Your task to perform on an android device: delete a single message in the gmail app Image 0: 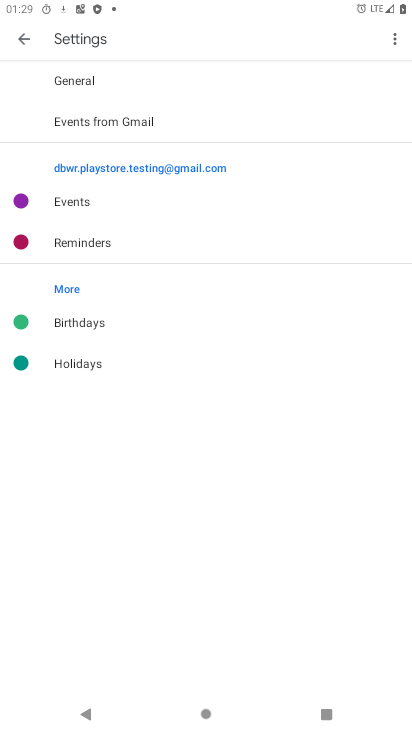
Step 0: press home button
Your task to perform on an android device: delete a single message in the gmail app Image 1: 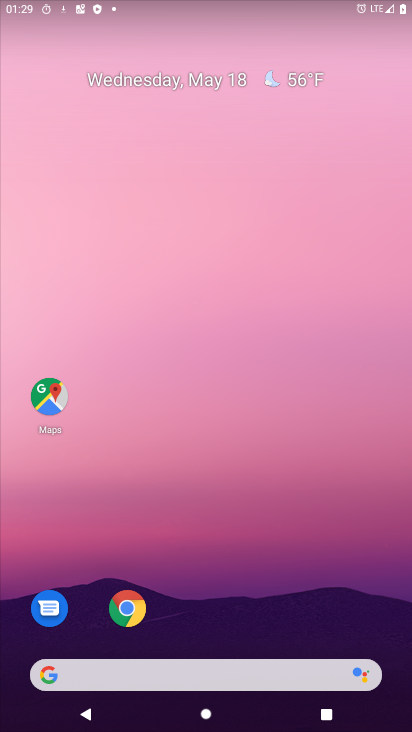
Step 1: drag from (232, 673) to (257, 304)
Your task to perform on an android device: delete a single message in the gmail app Image 2: 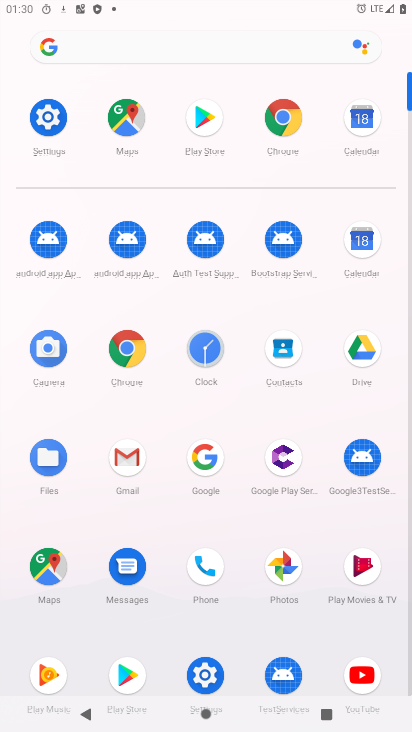
Step 2: click (134, 468)
Your task to perform on an android device: delete a single message in the gmail app Image 3: 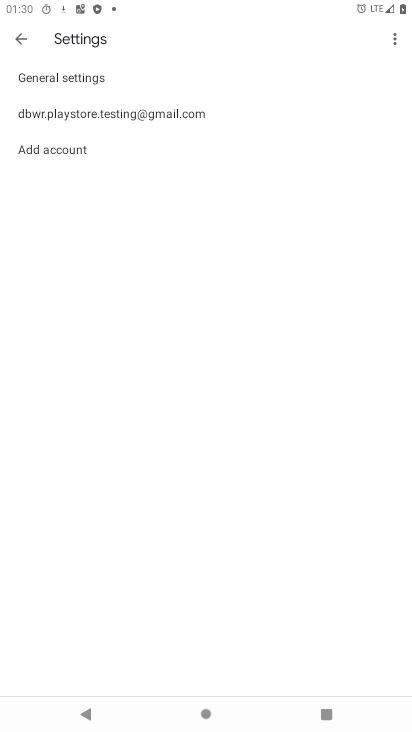
Step 3: click (26, 43)
Your task to perform on an android device: delete a single message in the gmail app Image 4: 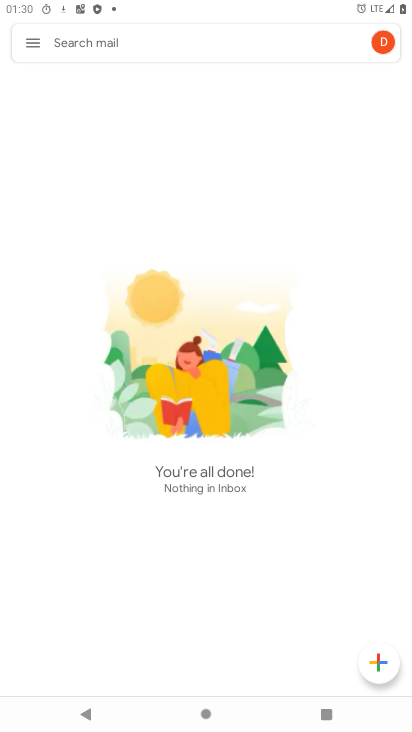
Step 4: click (26, 43)
Your task to perform on an android device: delete a single message in the gmail app Image 5: 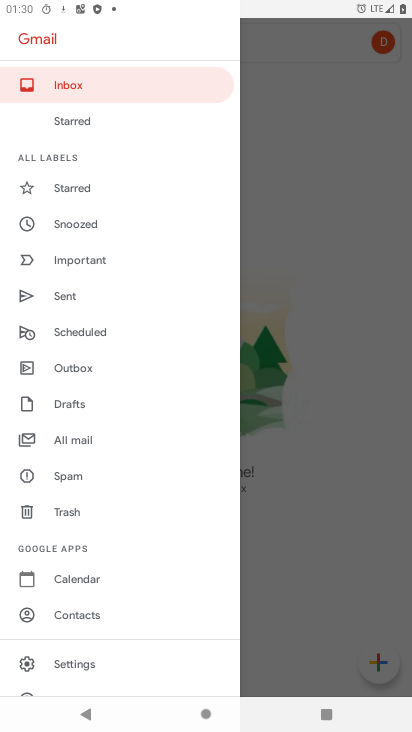
Step 5: click (56, 431)
Your task to perform on an android device: delete a single message in the gmail app Image 6: 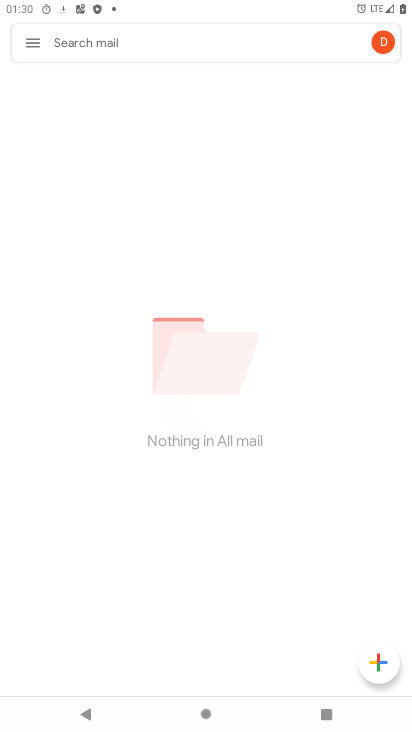
Step 6: task complete